Your task to perform on an android device: toggle wifi Image 0: 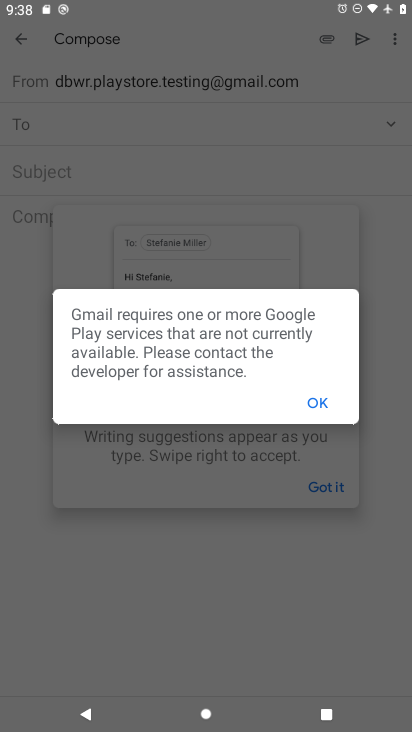
Step 0: press home button
Your task to perform on an android device: toggle wifi Image 1: 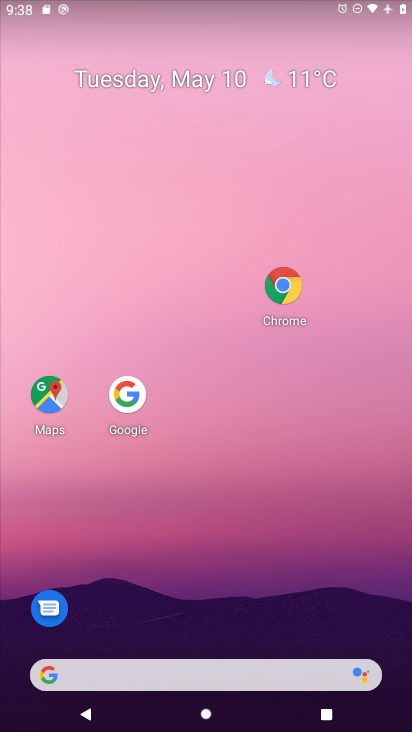
Step 1: drag from (118, 676) to (269, 130)
Your task to perform on an android device: toggle wifi Image 2: 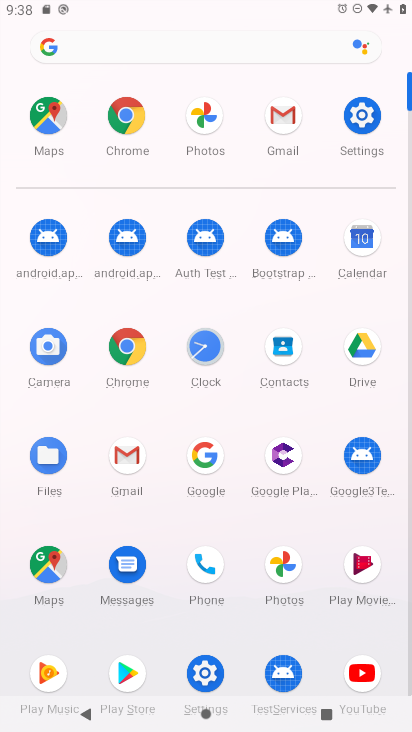
Step 2: click (355, 118)
Your task to perform on an android device: toggle wifi Image 3: 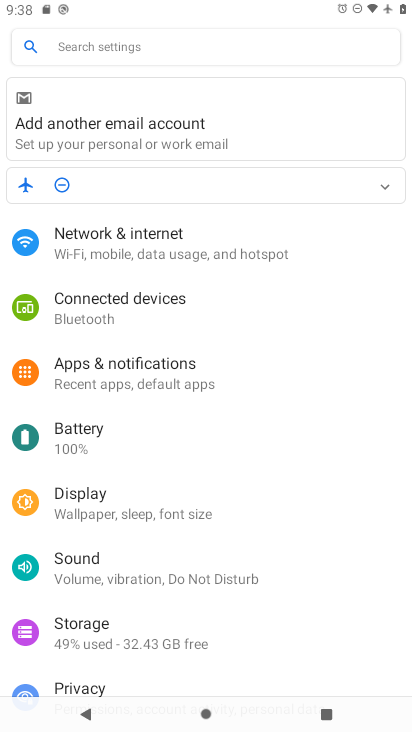
Step 3: click (160, 251)
Your task to perform on an android device: toggle wifi Image 4: 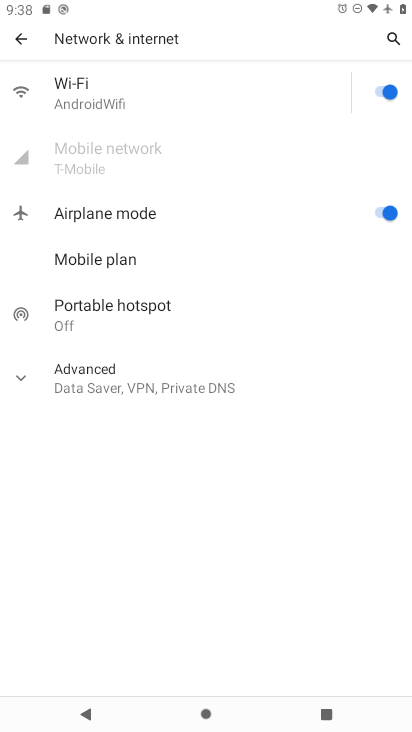
Step 4: click (376, 91)
Your task to perform on an android device: toggle wifi Image 5: 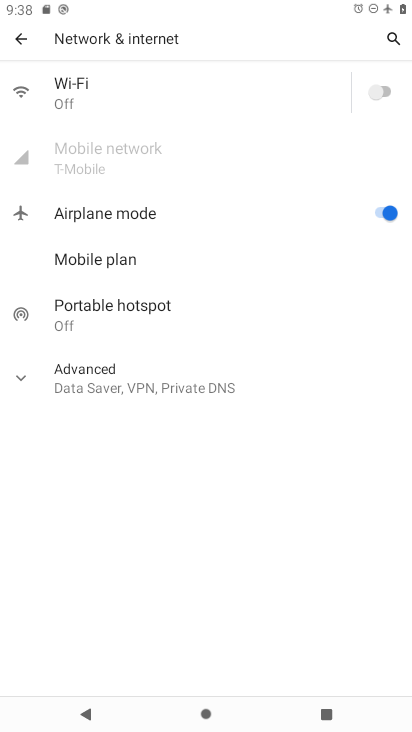
Step 5: task complete